Your task to perform on an android device: change the upload size in google photos Image 0: 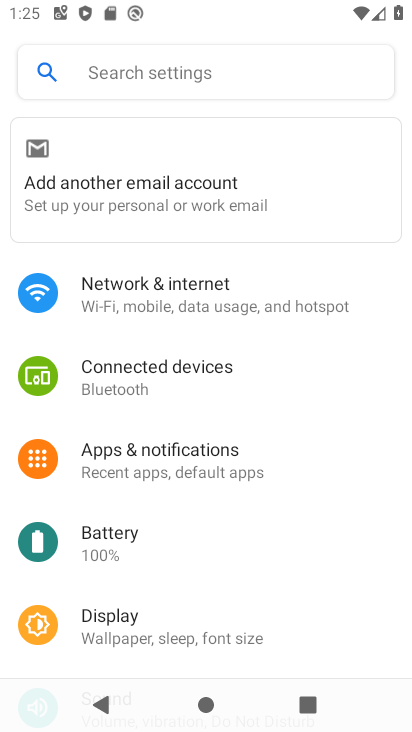
Step 0: press home button
Your task to perform on an android device: change the upload size in google photos Image 1: 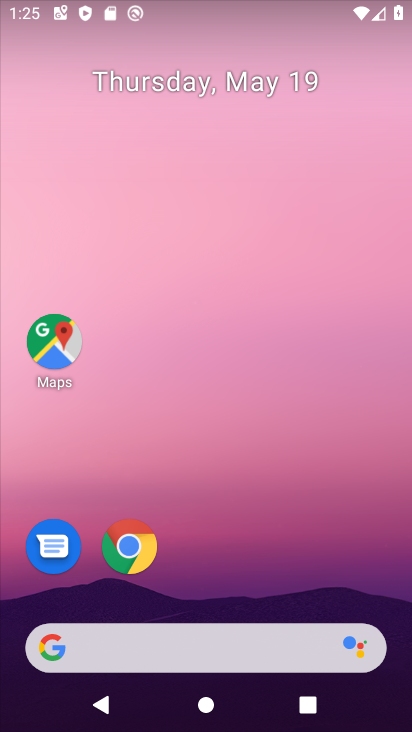
Step 1: drag from (231, 560) to (276, 182)
Your task to perform on an android device: change the upload size in google photos Image 2: 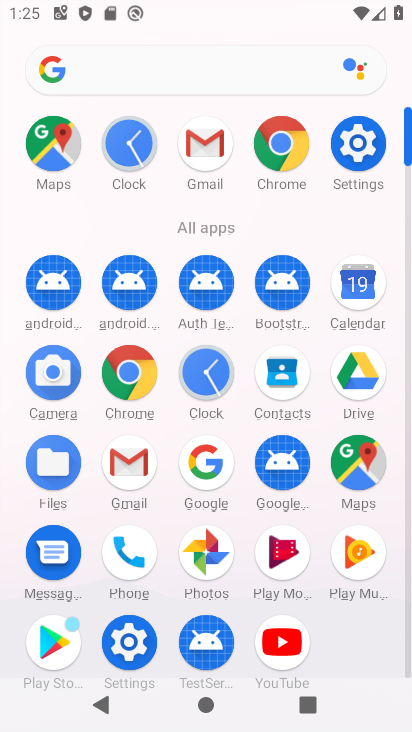
Step 2: click (206, 553)
Your task to perform on an android device: change the upload size in google photos Image 3: 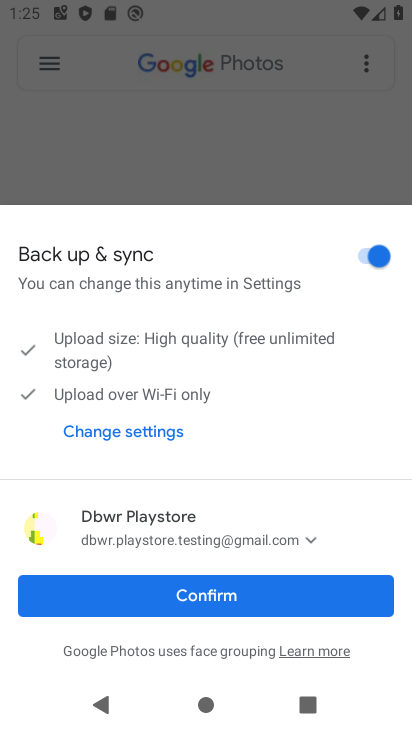
Step 3: click (269, 605)
Your task to perform on an android device: change the upload size in google photos Image 4: 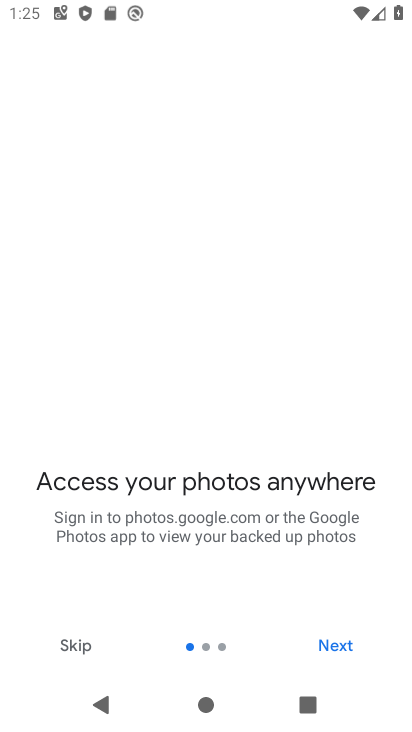
Step 4: click (333, 646)
Your task to perform on an android device: change the upload size in google photos Image 5: 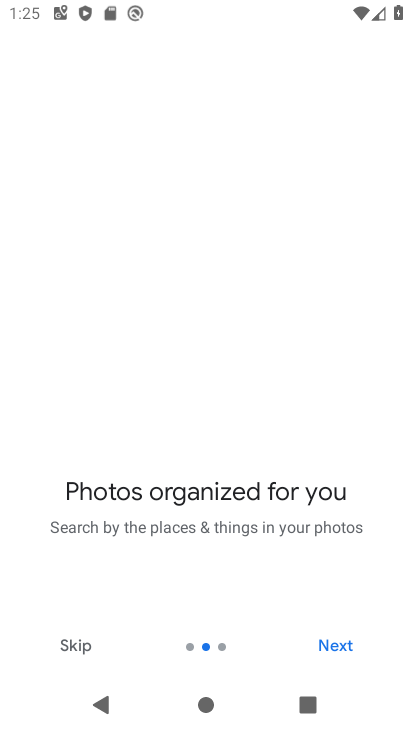
Step 5: click (333, 646)
Your task to perform on an android device: change the upload size in google photos Image 6: 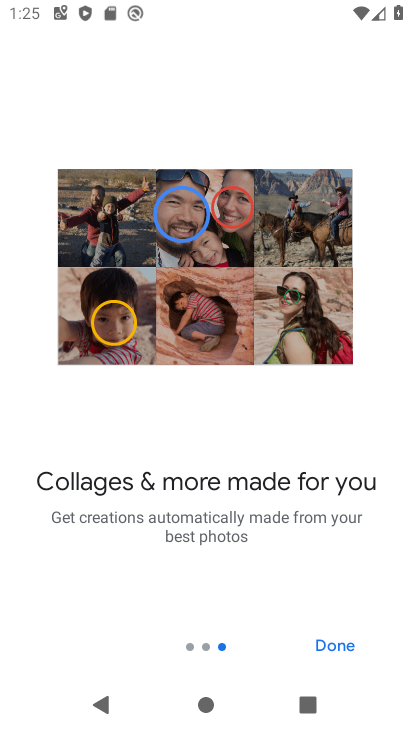
Step 6: click (334, 646)
Your task to perform on an android device: change the upload size in google photos Image 7: 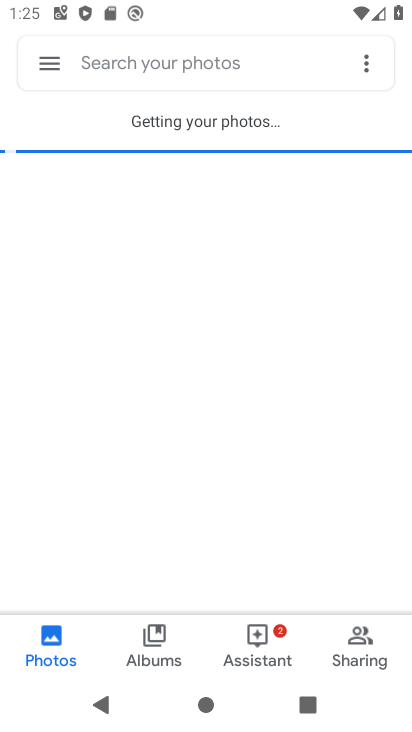
Step 7: click (51, 66)
Your task to perform on an android device: change the upload size in google photos Image 8: 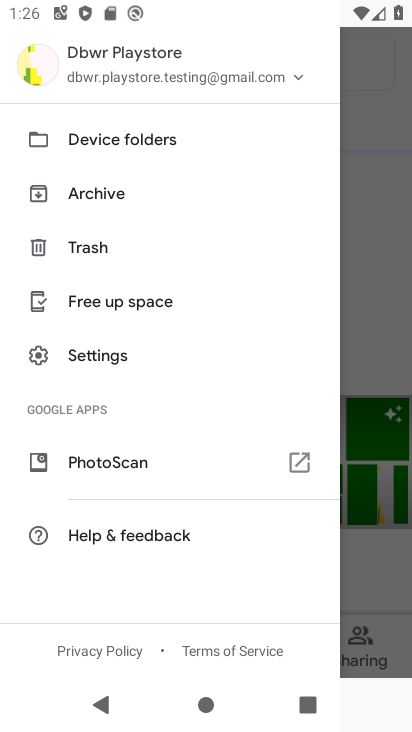
Step 8: click (113, 361)
Your task to perform on an android device: change the upload size in google photos Image 9: 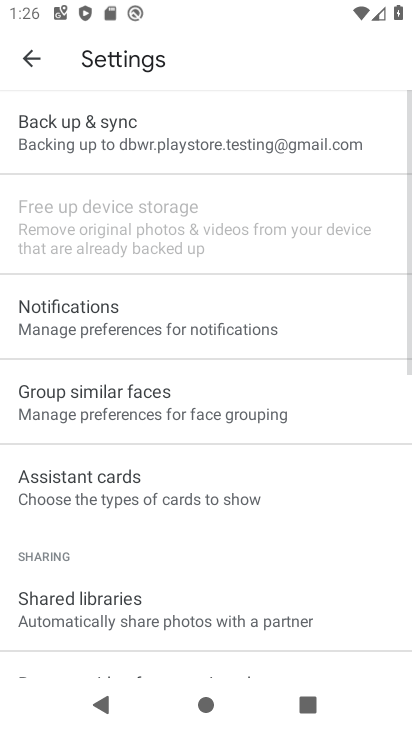
Step 9: click (147, 125)
Your task to perform on an android device: change the upload size in google photos Image 10: 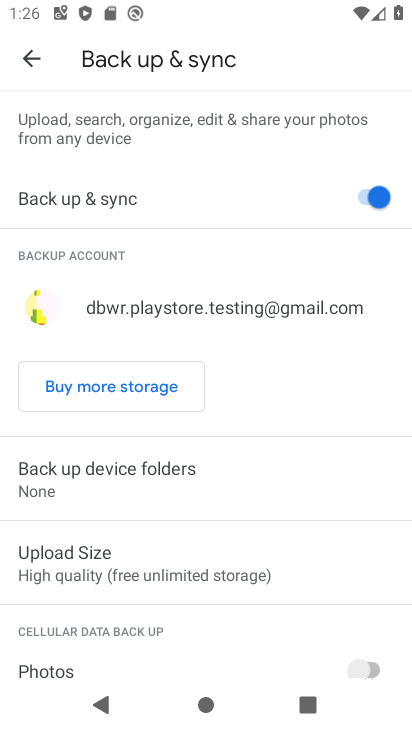
Step 10: click (178, 565)
Your task to perform on an android device: change the upload size in google photos Image 11: 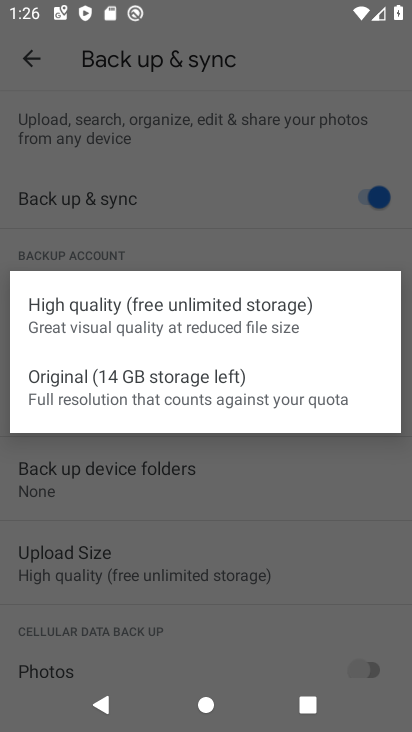
Step 11: click (253, 315)
Your task to perform on an android device: change the upload size in google photos Image 12: 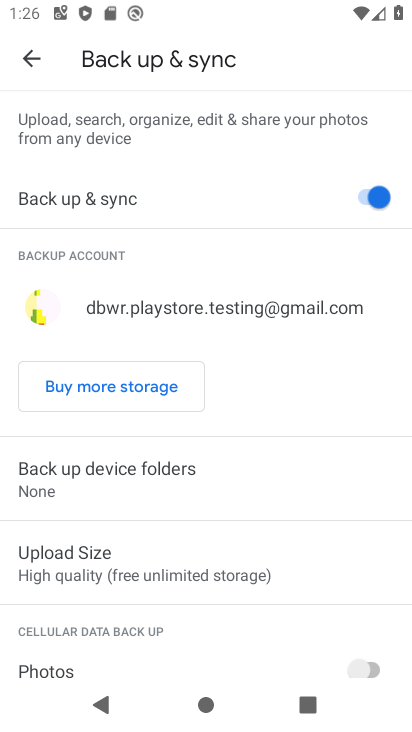
Step 12: task complete